Your task to perform on an android device: Search for macbook pro 15 inch on walmart.com, select the first entry, add it to the cart, then select checkout. Image 0: 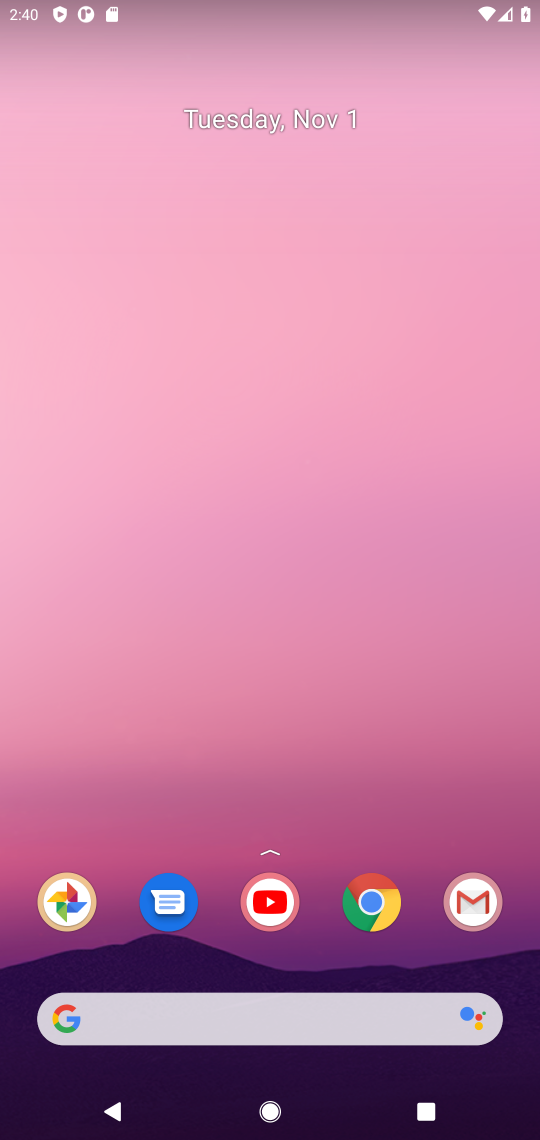
Step 0: click (370, 902)
Your task to perform on an android device: Search for macbook pro 15 inch on walmart.com, select the first entry, add it to the cart, then select checkout. Image 1: 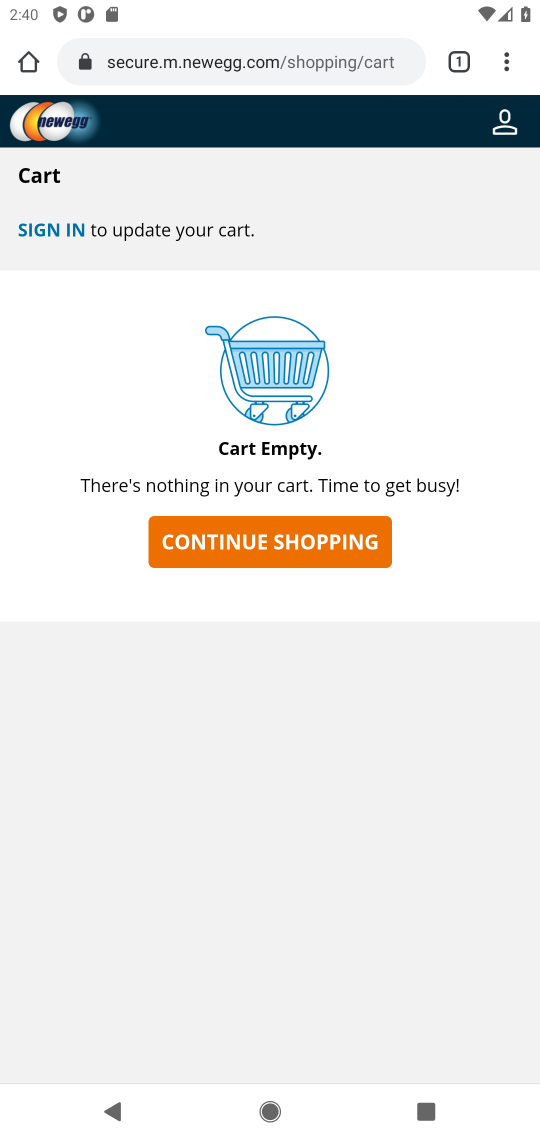
Step 1: click (327, 69)
Your task to perform on an android device: Search for macbook pro 15 inch on walmart.com, select the first entry, add it to the cart, then select checkout. Image 2: 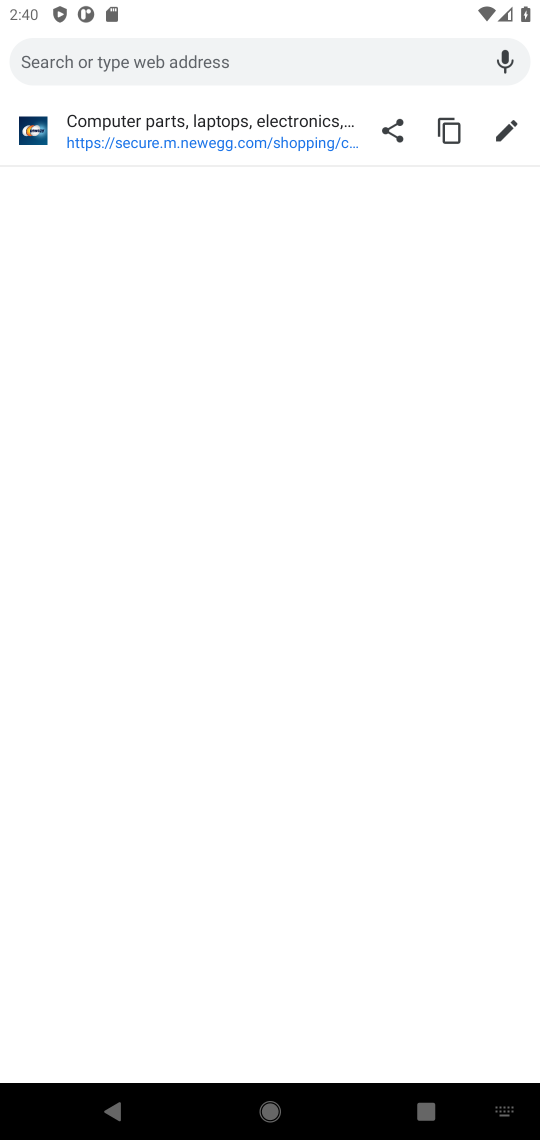
Step 2: type "walmart.com"
Your task to perform on an android device: Search for macbook pro 15 inch on walmart.com, select the first entry, add it to the cart, then select checkout. Image 3: 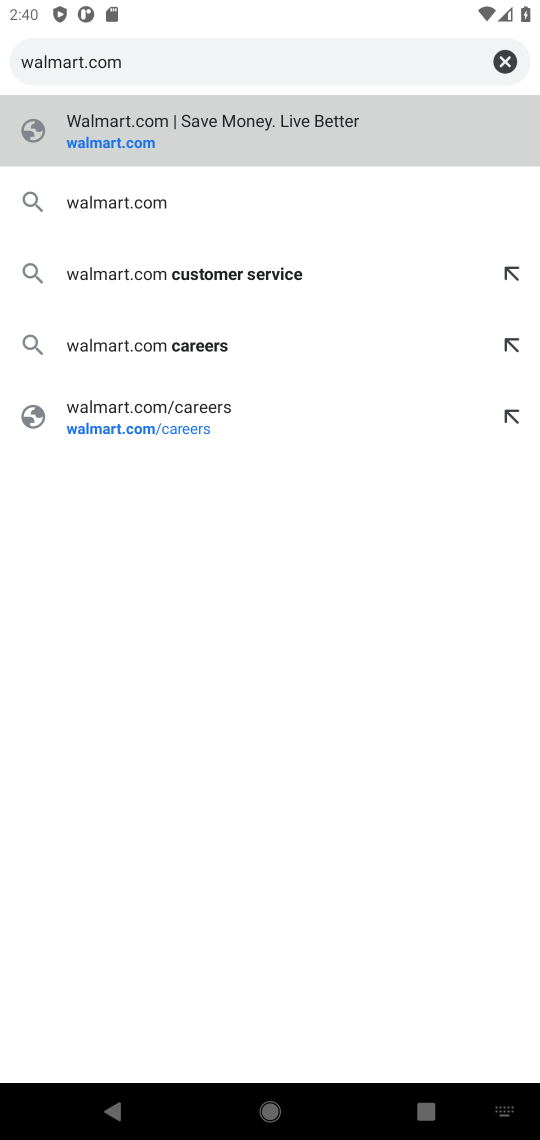
Step 3: click (143, 202)
Your task to perform on an android device: Search for macbook pro 15 inch on walmart.com, select the first entry, add it to the cart, then select checkout. Image 4: 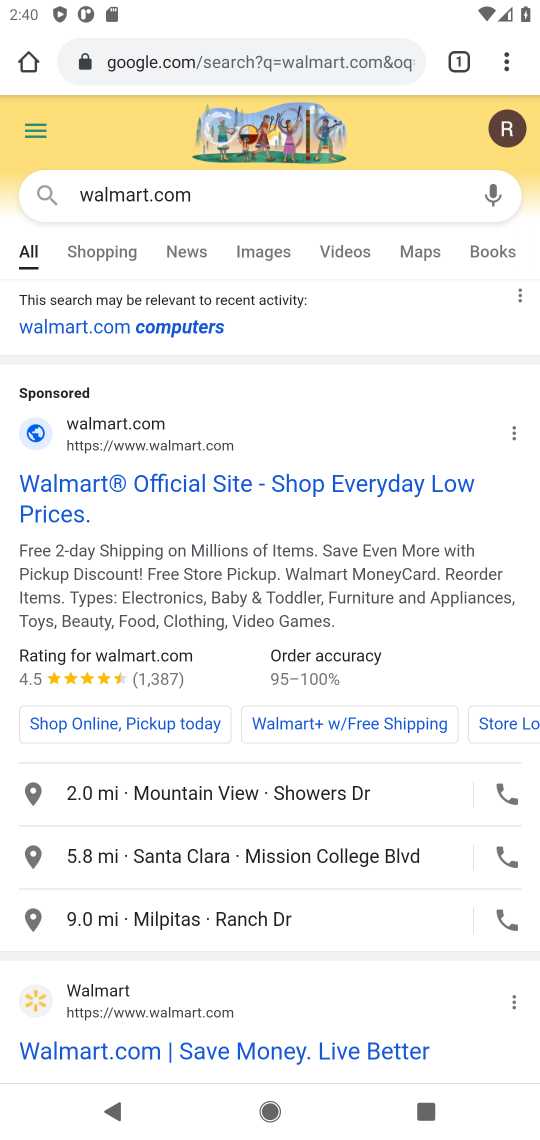
Step 4: drag from (324, 991) to (376, 404)
Your task to perform on an android device: Search for macbook pro 15 inch on walmart.com, select the first entry, add it to the cart, then select checkout. Image 5: 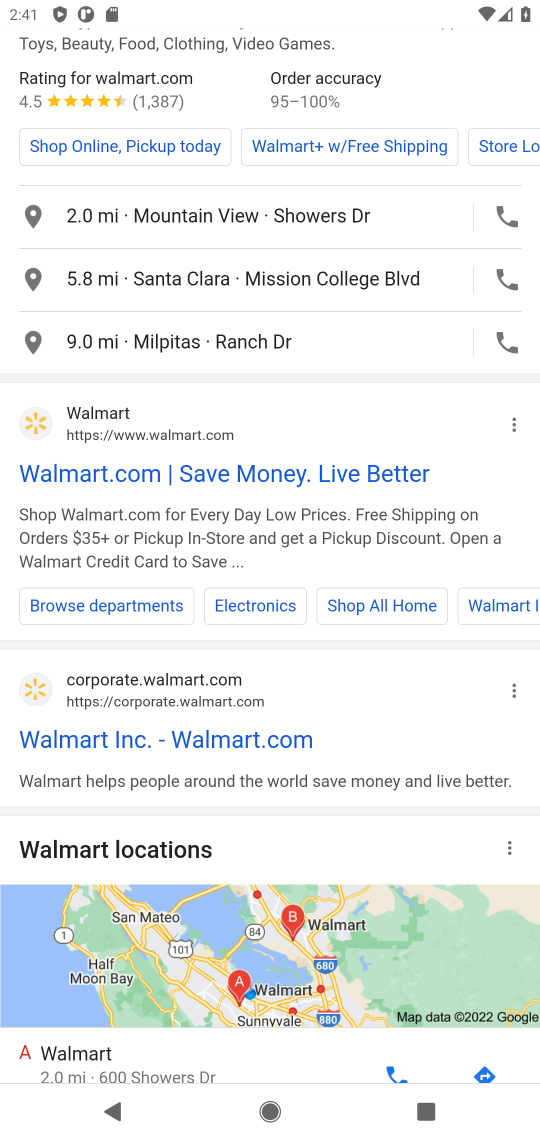
Step 5: click (267, 476)
Your task to perform on an android device: Search for macbook pro 15 inch on walmart.com, select the first entry, add it to the cart, then select checkout. Image 6: 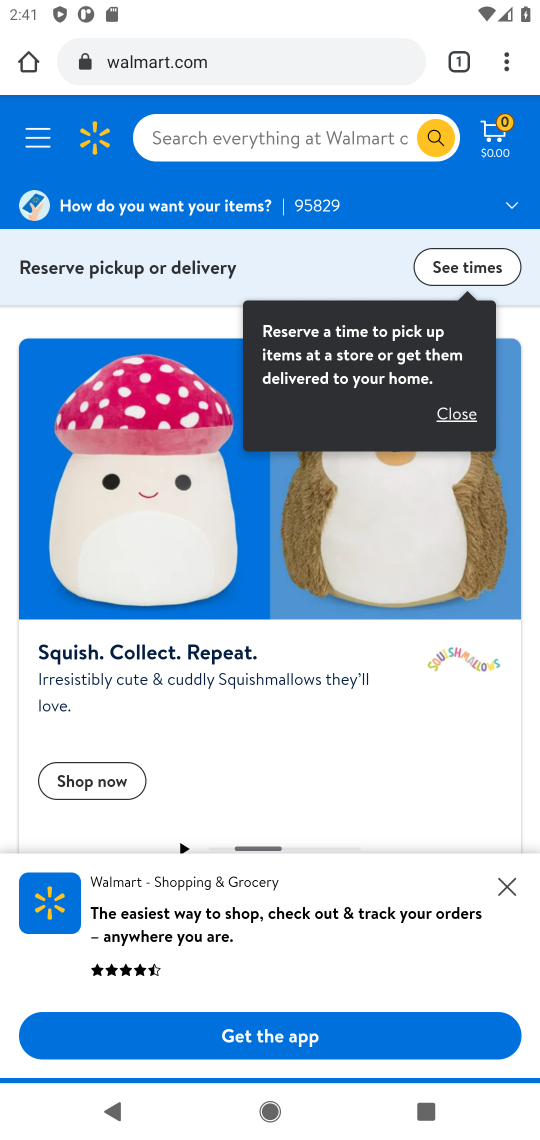
Step 6: click (328, 128)
Your task to perform on an android device: Search for macbook pro 15 inch on walmart.com, select the first entry, add it to the cart, then select checkout. Image 7: 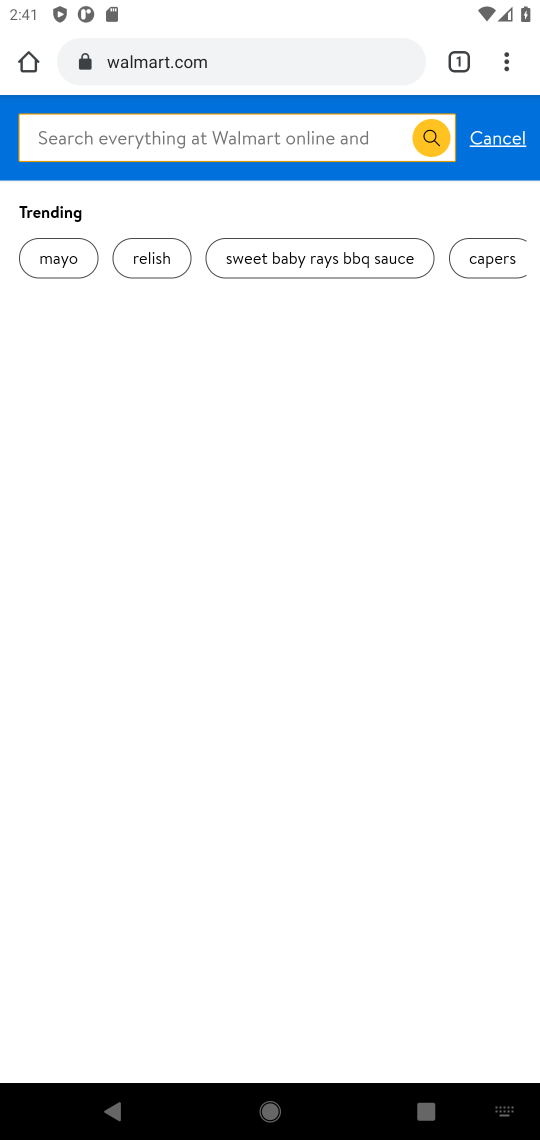
Step 7: type "macbook pro 15 inch"
Your task to perform on an android device: Search for macbook pro 15 inch on walmart.com, select the first entry, add it to the cart, then select checkout. Image 8: 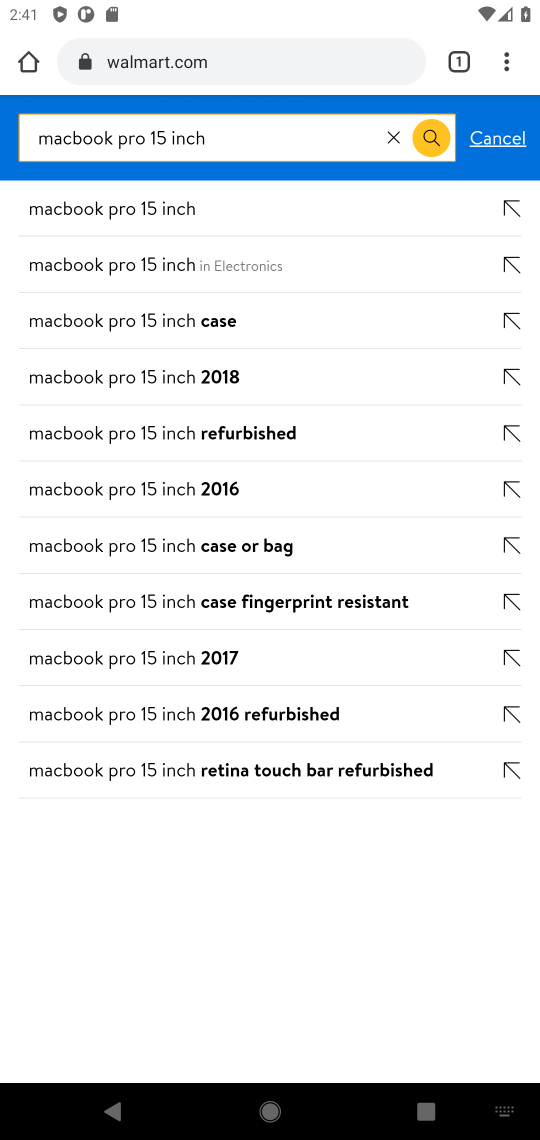
Step 8: click (101, 204)
Your task to perform on an android device: Search for macbook pro 15 inch on walmart.com, select the first entry, add it to the cart, then select checkout. Image 9: 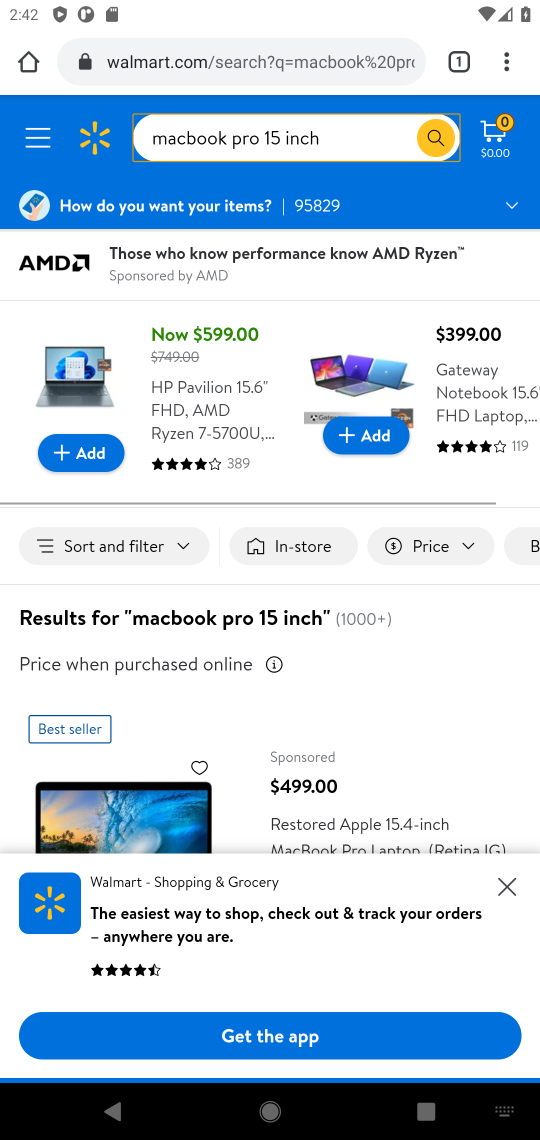
Step 9: drag from (443, 774) to (459, 363)
Your task to perform on an android device: Search for macbook pro 15 inch on walmart.com, select the first entry, add it to the cart, then select checkout. Image 10: 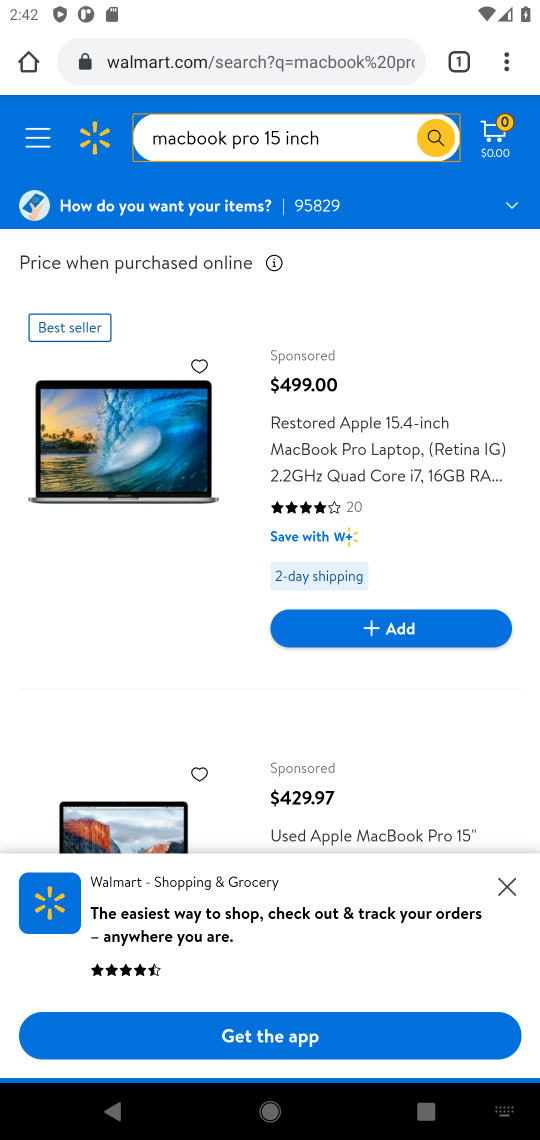
Step 10: click (390, 623)
Your task to perform on an android device: Search for macbook pro 15 inch on walmart.com, select the first entry, add it to the cart, then select checkout. Image 11: 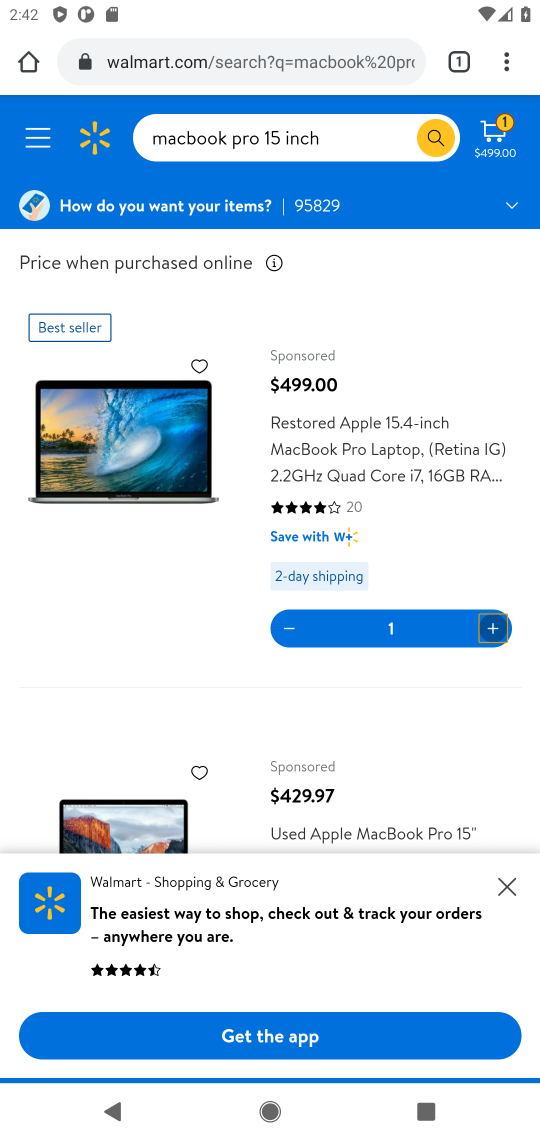
Step 11: click (504, 127)
Your task to perform on an android device: Search for macbook pro 15 inch on walmart.com, select the first entry, add it to the cart, then select checkout. Image 12: 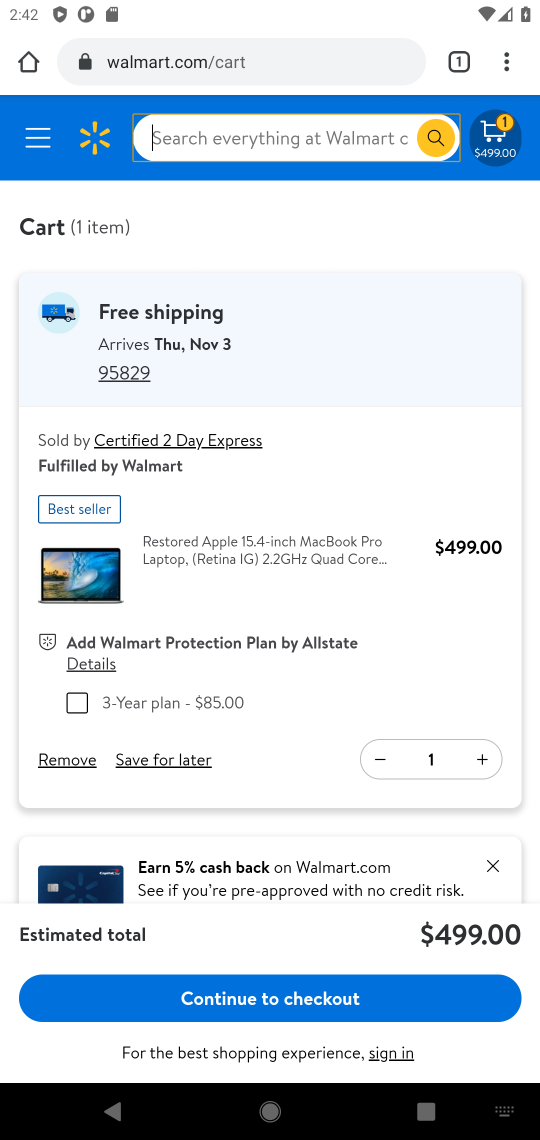
Step 12: click (328, 994)
Your task to perform on an android device: Search for macbook pro 15 inch on walmart.com, select the first entry, add it to the cart, then select checkout. Image 13: 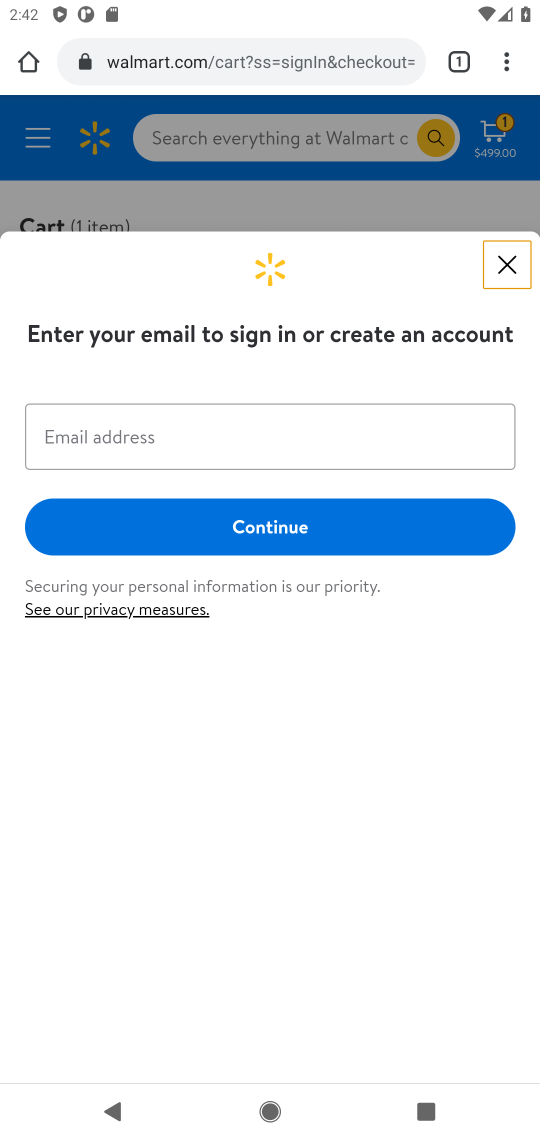
Step 13: task complete